Your task to perform on an android device: set the stopwatch Image 0: 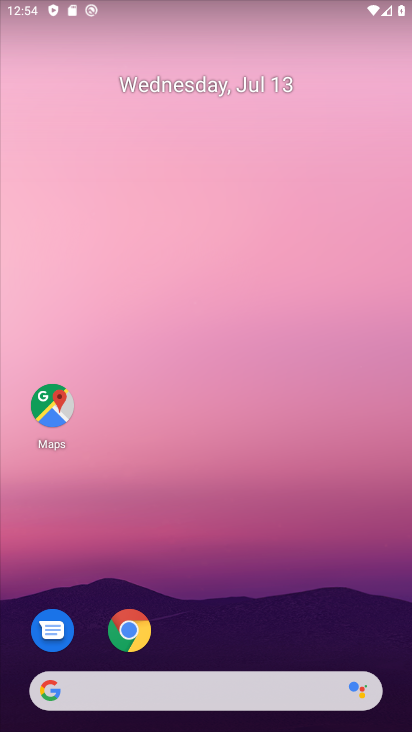
Step 0: drag from (273, 620) to (306, 82)
Your task to perform on an android device: set the stopwatch Image 1: 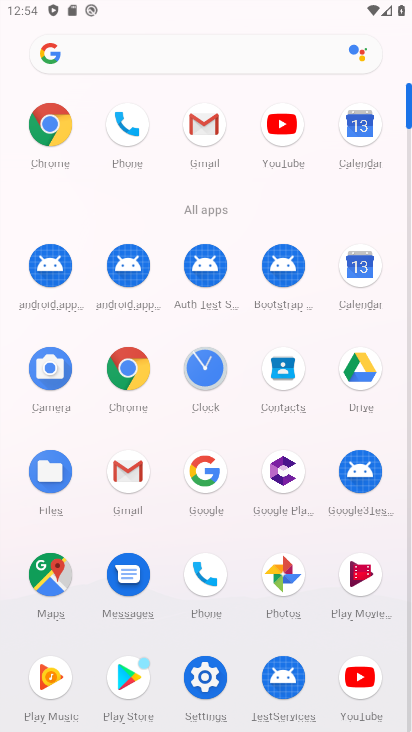
Step 1: click (215, 372)
Your task to perform on an android device: set the stopwatch Image 2: 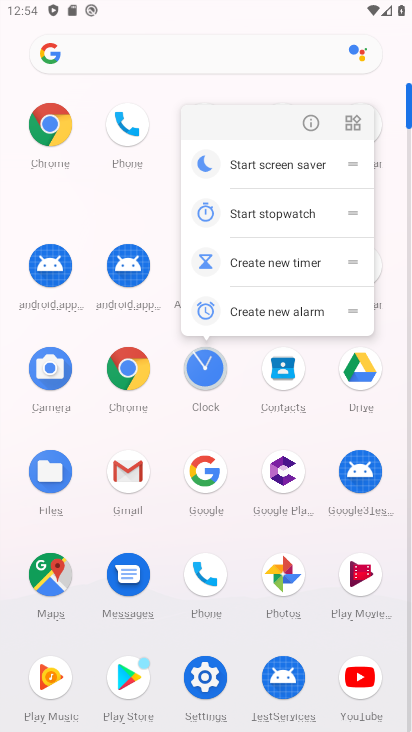
Step 2: click (215, 369)
Your task to perform on an android device: set the stopwatch Image 3: 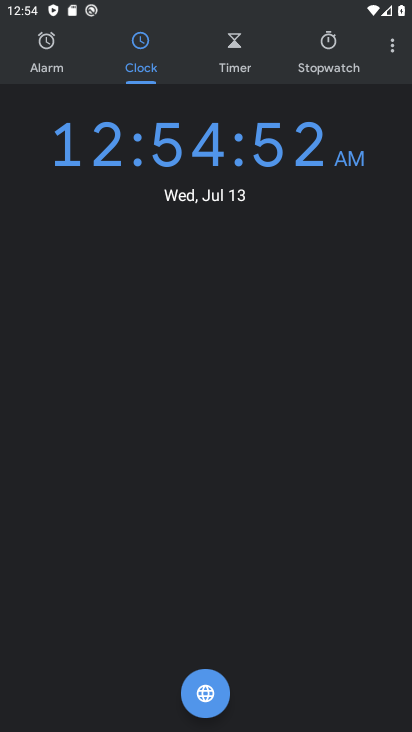
Step 3: click (348, 64)
Your task to perform on an android device: set the stopwatch Image 4: 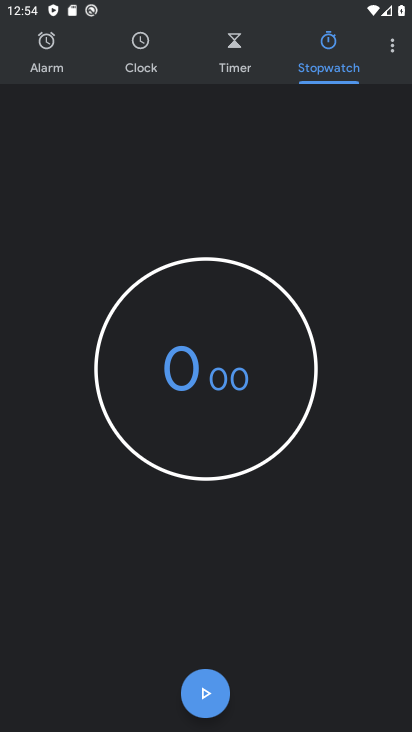
Step 4: click (197, 714)
Your task to perform on an android device: set the stopwatch Image 5: 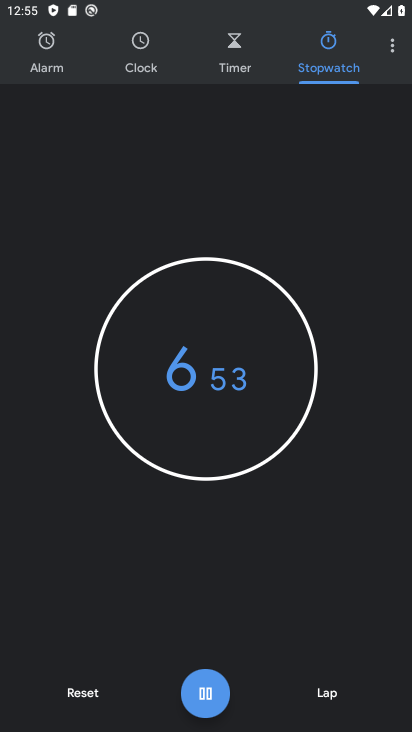
Step 5: task complete